Your task to perform on an android device: Open eBay Image 0: 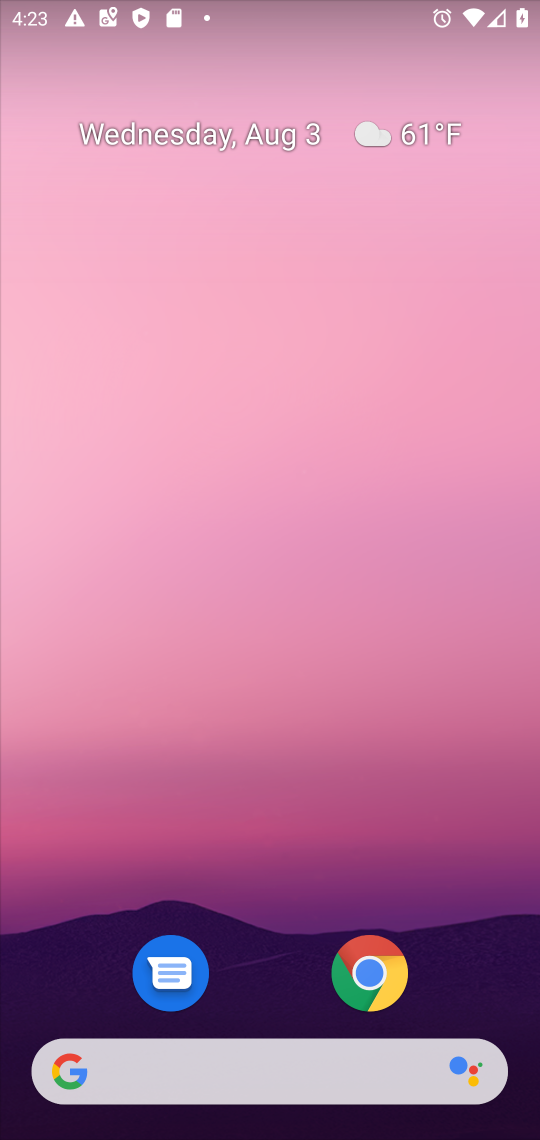
Step 0: click (303, 1066)
Your task to perform on an android device: Open eBay Image 1: 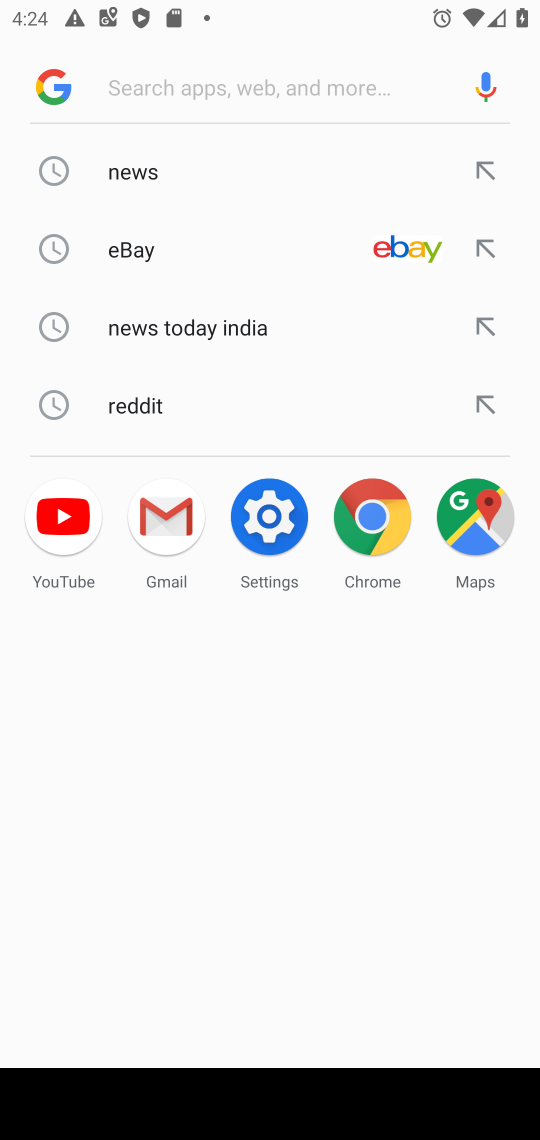
Step 1: click (245, 257)
Your task to perform on an android device: Open eBay Image 2: 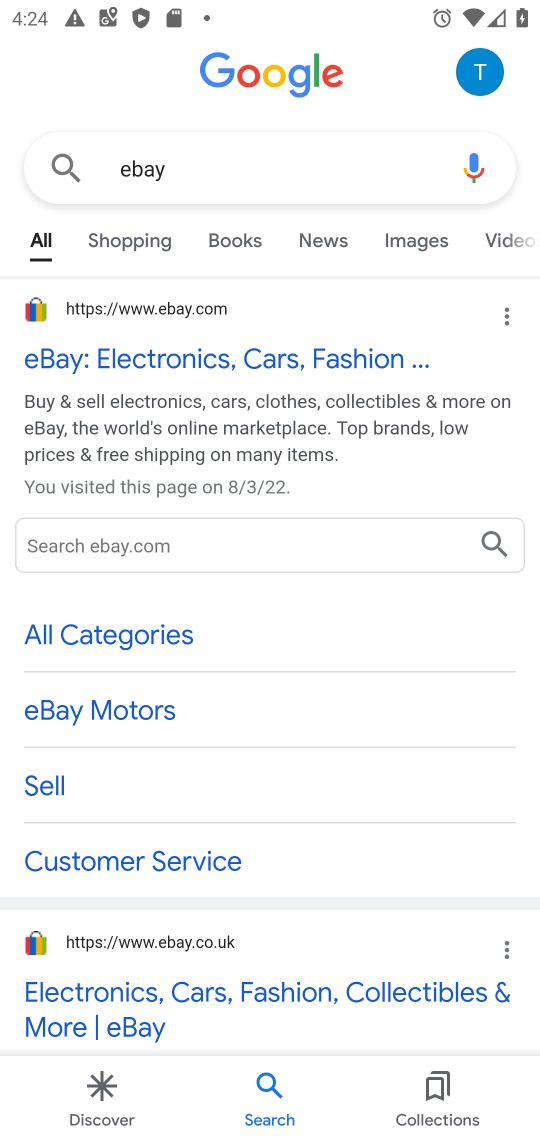
Step 2: click (51, 346)
Your task to perform on an android device: Open eBay Image 3: 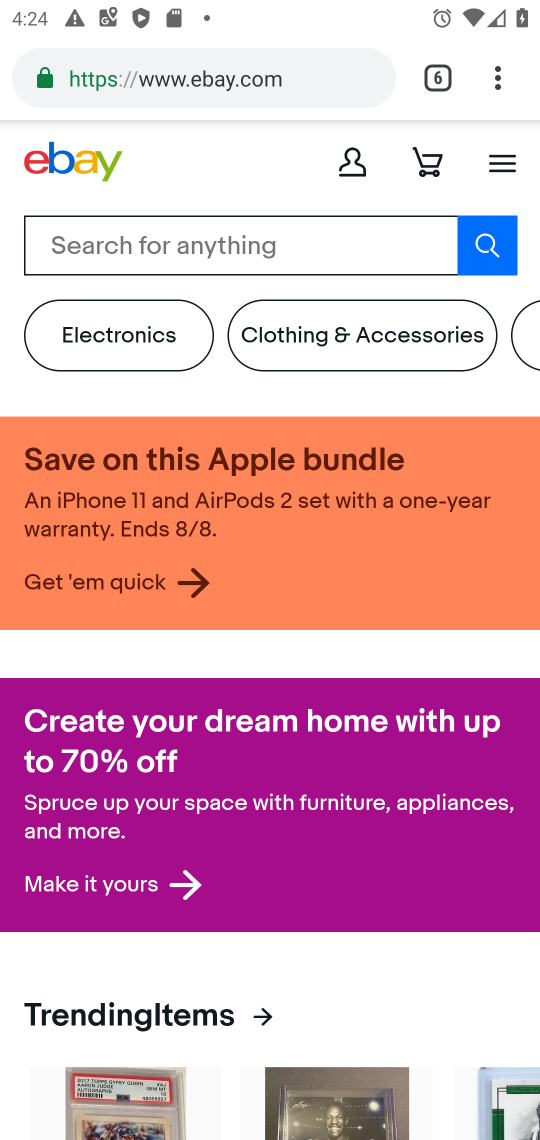
Step 3: task complete